Your task to perform on an android device: turn on wifi Image 0: 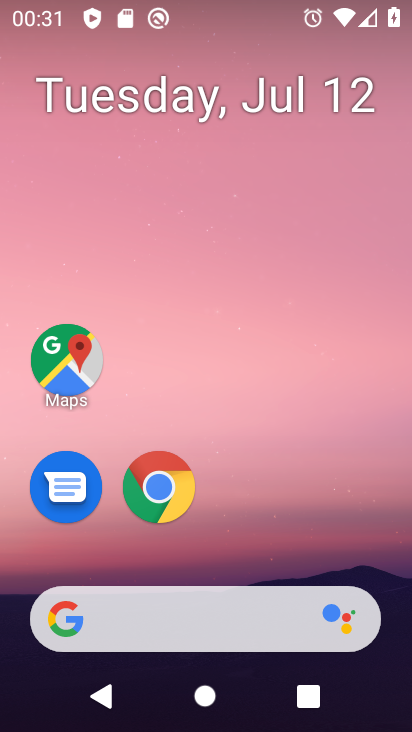
Step 0: drag from (357, 549) to (357, 79)
Your task to perform on an android device: turn on wifi Image 1: 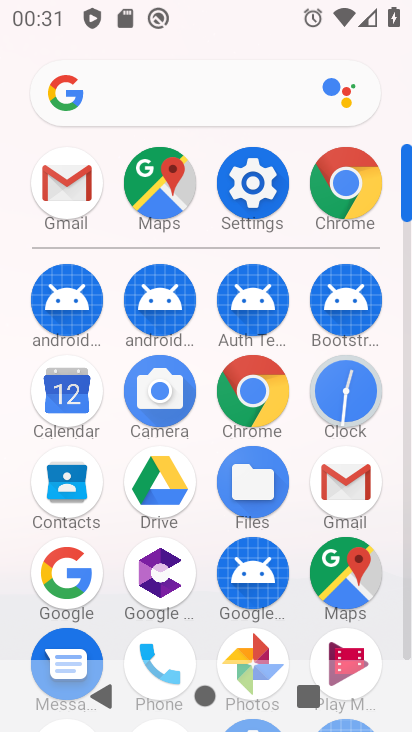
Step 1: click (244, 183)
Your task to perform on an android device: turn on wifi Image 2: 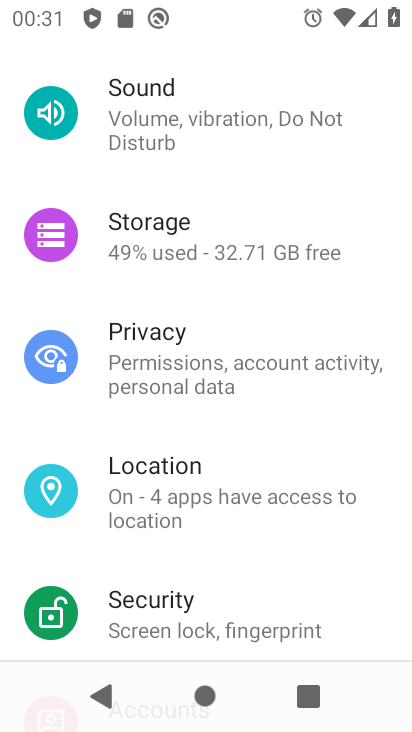
Step 2: drag from (366, 572) to (382, 344)
Your task to perform on an android device: turn on wifi Image 3: 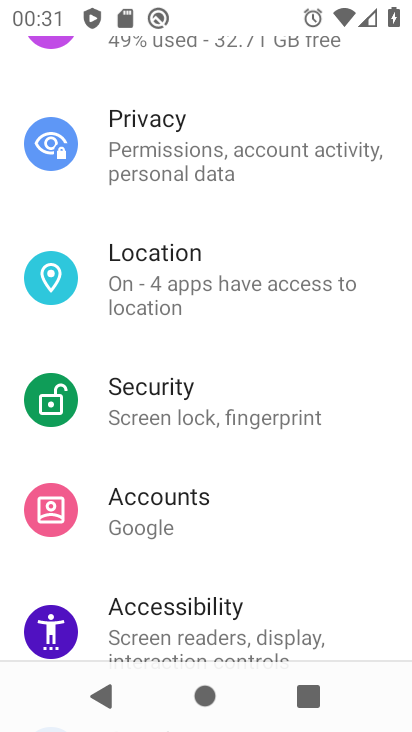
Step 3: drag from (330, 515) to (353, 370)
Your task to perform on an android device: turn on wifi Image 4: 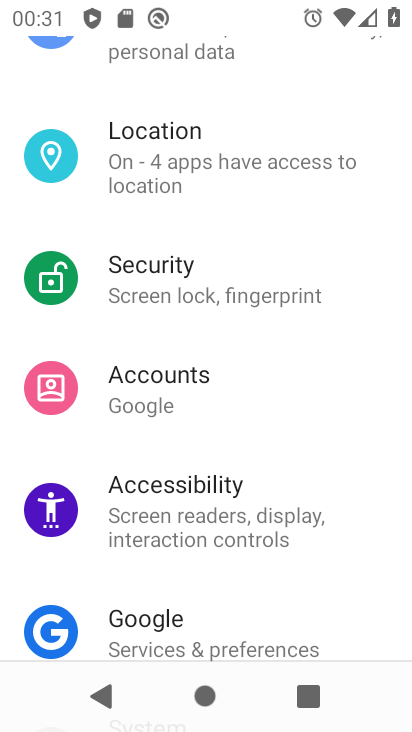
Step 4: drag from (354, 570) to (363, 364)
Your task to perform on an android device: turn on wifi Image 5: 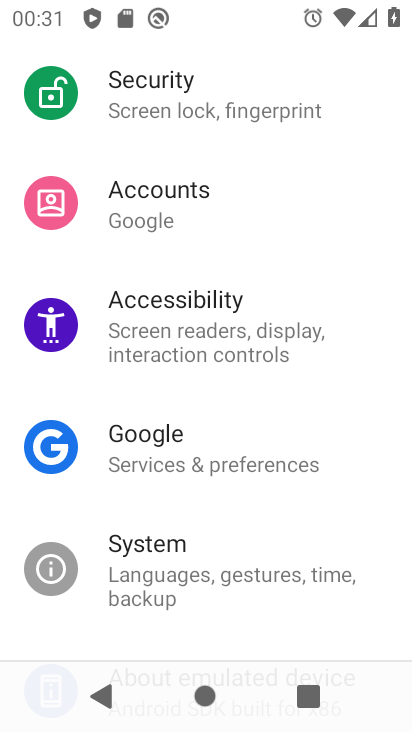
Step 5: drag from (354, 606) to (360, 379)
Your task to perform on an android device: turn on wifi Image 6: 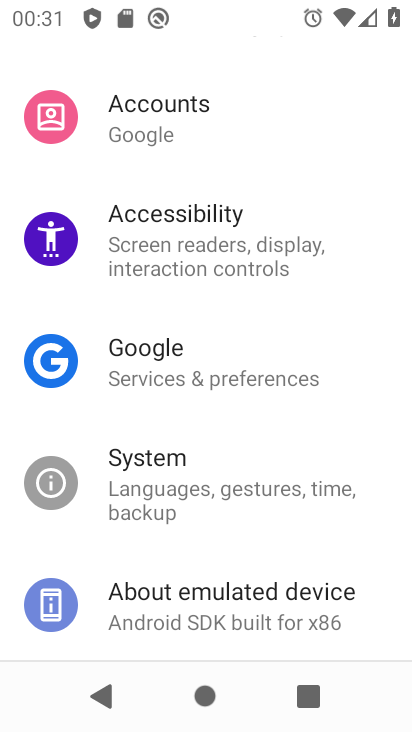
Step 6: drag from (366, 259) to (358, 406)
Your task to perform on an android device: turn on wifi Image 7: 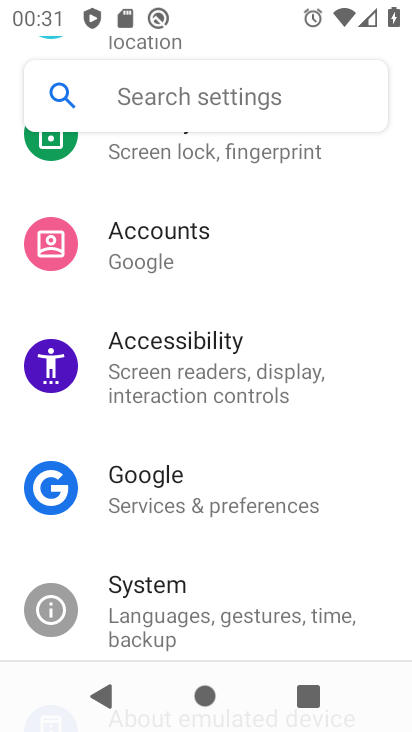
Step 7: drag from (349, 276) to (351, 446)
Your task to perform on an android device: turn on wifi Image 8: 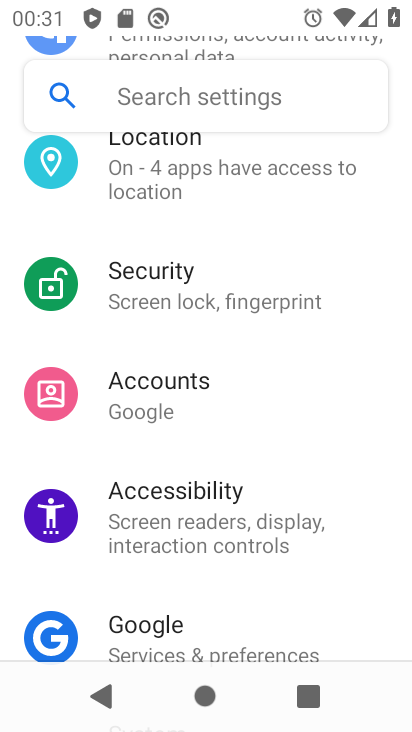
Step 8: drag from (355, 277) to (363, 490)
Your task to perform on an android device: turn on wifi Image 9: 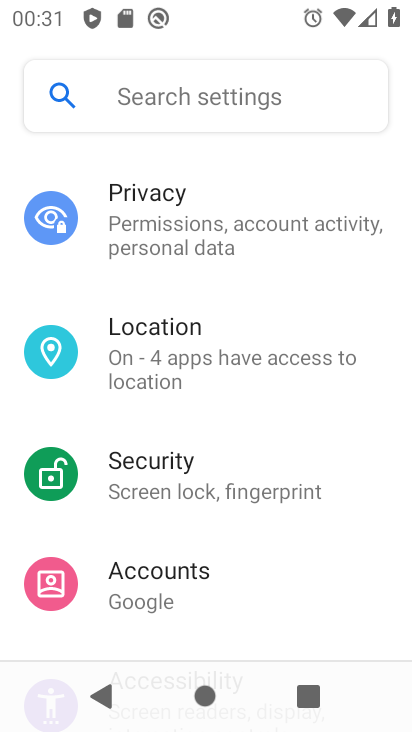
Step 9: drag from (341, 291) to (347, 460)
Your task to perform on an android device: turn on wifi Image 10: 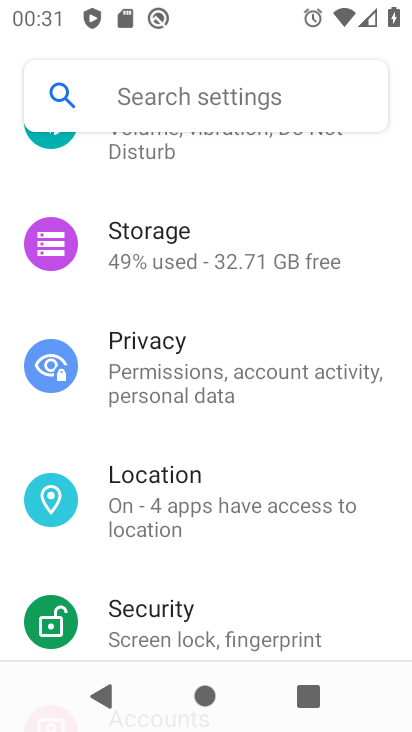
Step 10: drag from (345, 233) to (342, 469)
Your task to perform on an android device: turn on wifi Image 11: 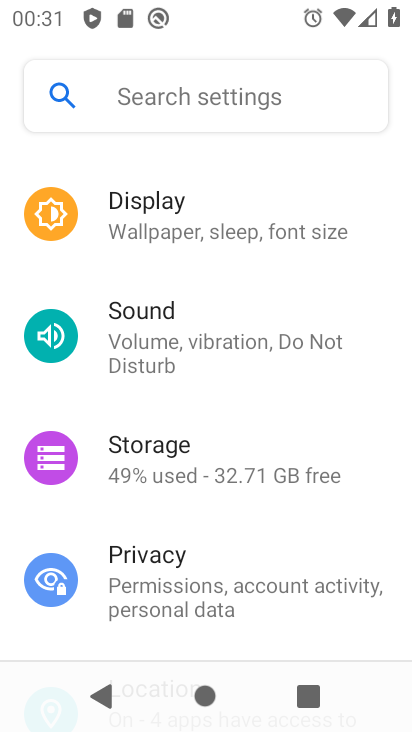
Step 11: drag from (338, 277) to (343, 427)
Your task to perform on an android device: turn on wifi Image 12: 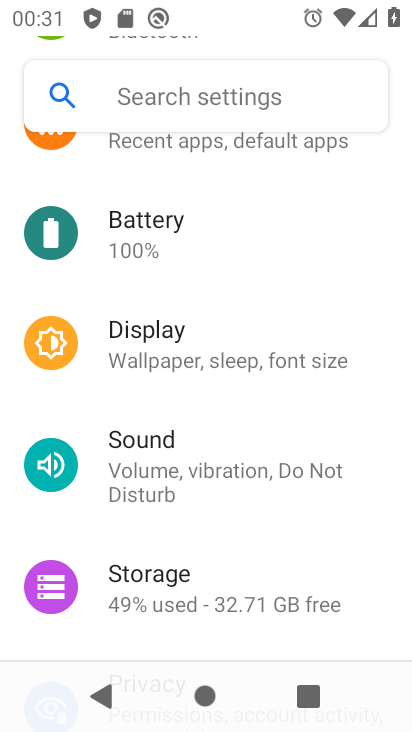
Step 12: drag from (333, 237) to (330, 391)
Your task to perform on an android device: turn on wifi Image 13: 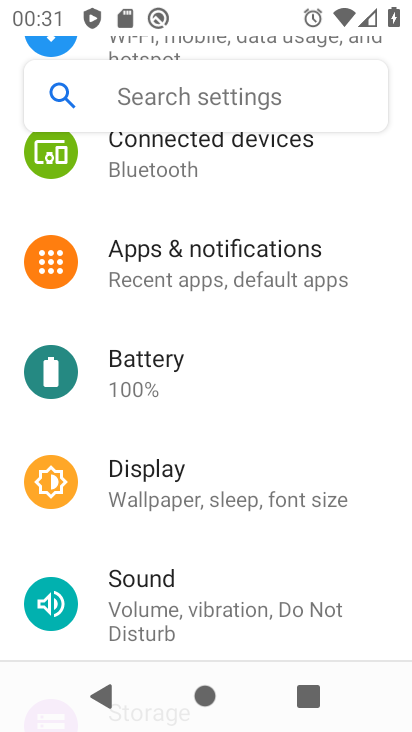
Step 13: drag from (323, 214) to (325, 422)
Your task to perform on an android device: turn on wifi Image 14: 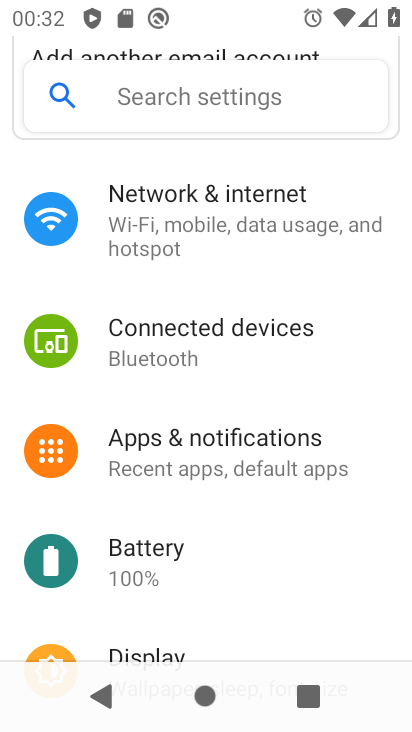
Step 14: click (259, 218)
Your task to perform on an android device: turn on wifi Image 15: 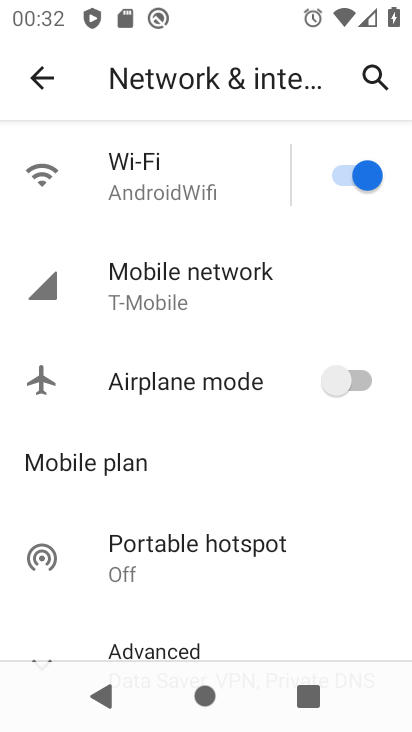
Step 15: task complete